Your task to perform on an android device: toggle location history Image 0: 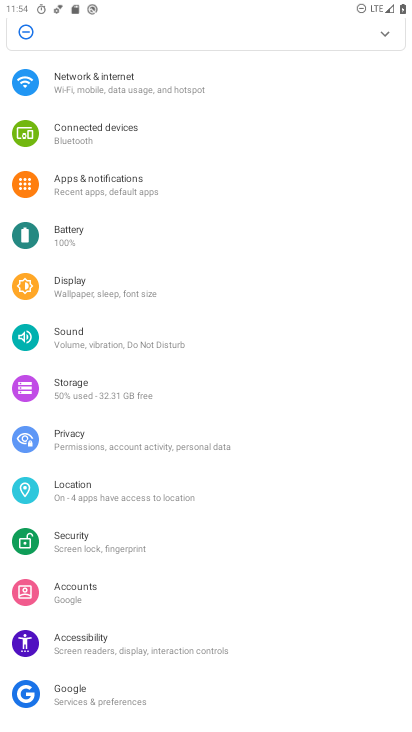
Step 0: press home button
Your task to perform on an android device: toggle location history Image 1: 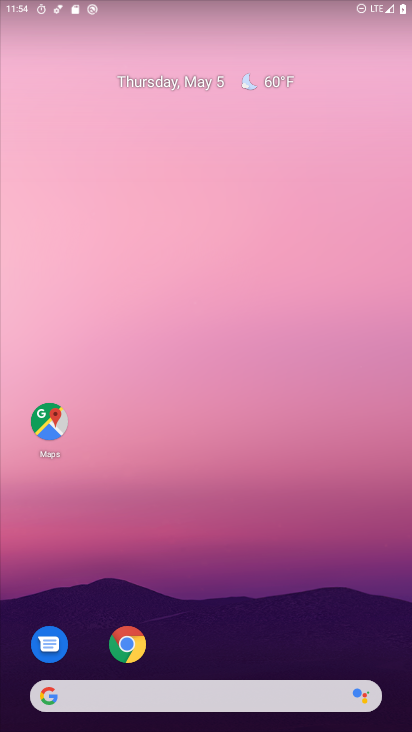
Step 1: drag from (328, 591) to (261, 171)
Your task to perform on an android device: toggle location history Image 2: 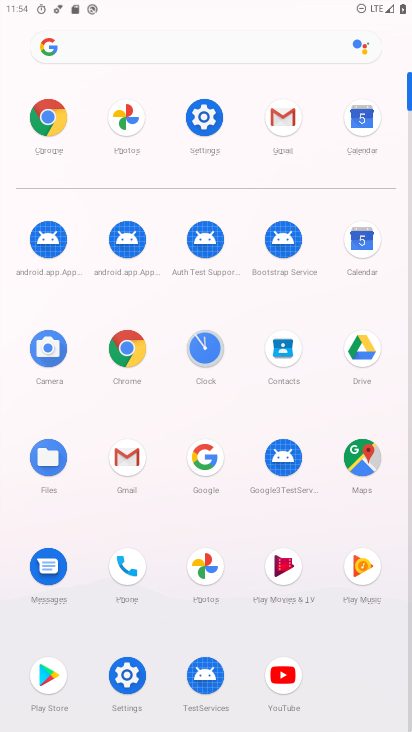
Step 2: click (197, 121)
Your task to perform on an android device: toggle location history Image 3: 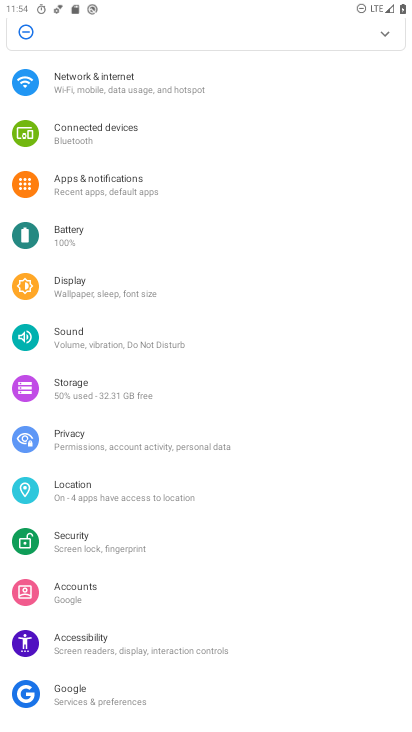
Step 3: click (106, 489)
Your task to perform on an android device: toggle location history Image 4: 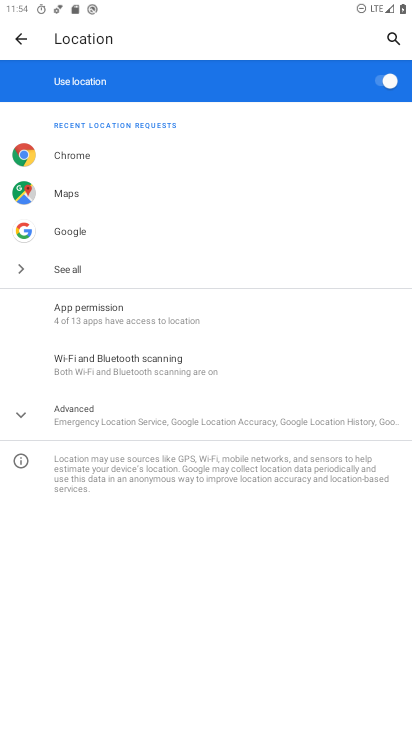
Step 4: click (137, 416)
Your task to perform on an android device: toggle location history Image 5: 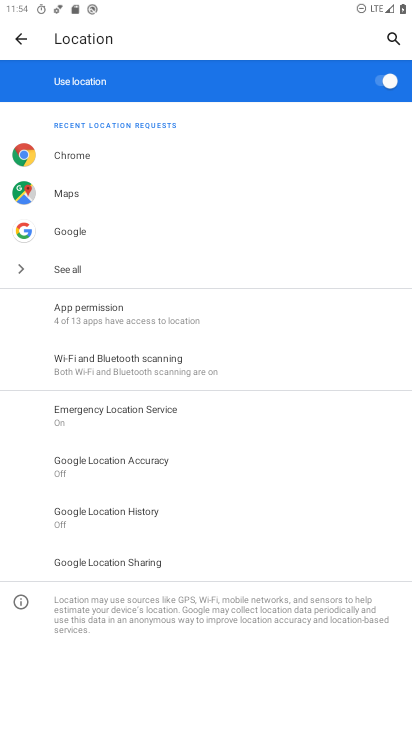
Step 5: click (125, 512)
Your task to perform on an android device: toggle location history Image 6: 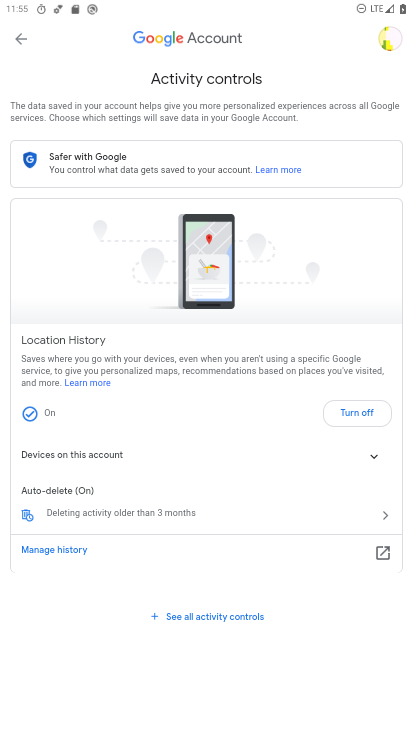
Step 6: click (383, 411)
Your task to perform on an android device: toggle location history Image 7: 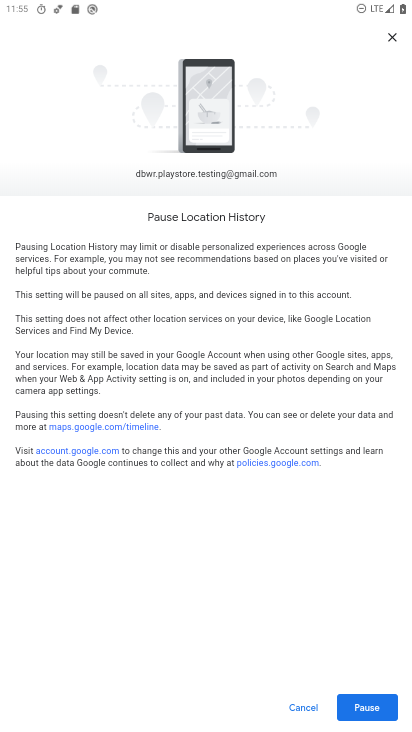
Step 7: click (362, 699)
Your task to perform on an android device: toggle location history Image 8: 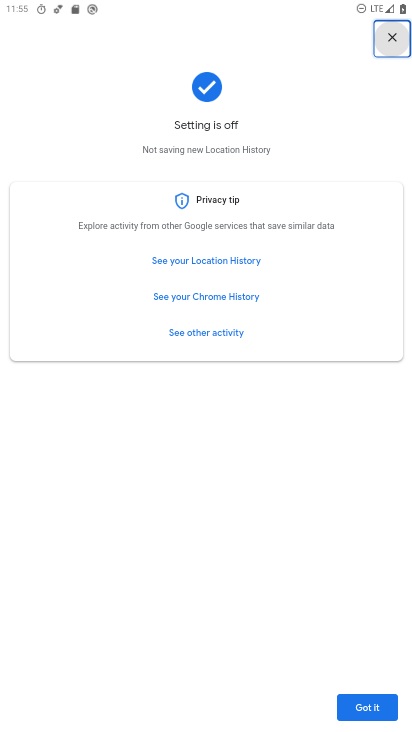
Step 8: click (365, 695)
Your task to perform on an android device: toggle location history Image 9: 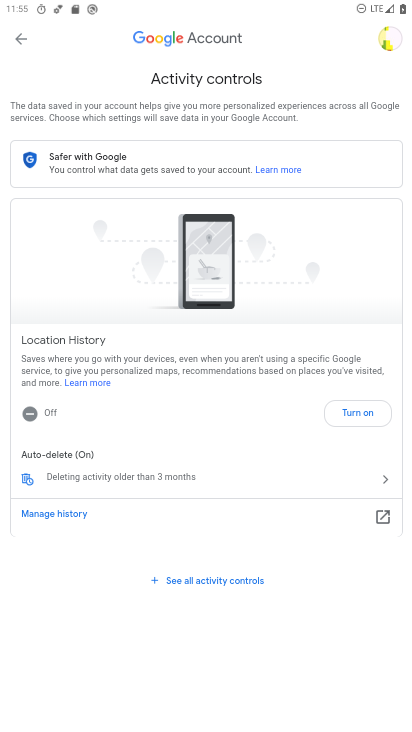
Step 9: task complete